Your task to perform on an android device: turn notification dots off Image 0: 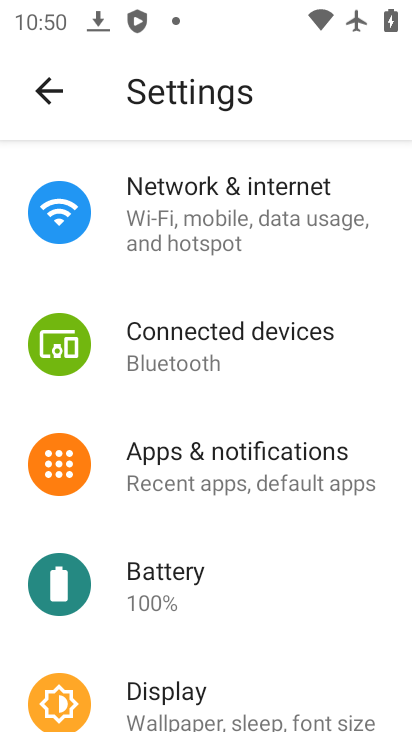
Step 0: click (276, 469)
Your task to perform on an android device: turn notification dots off Image 1: 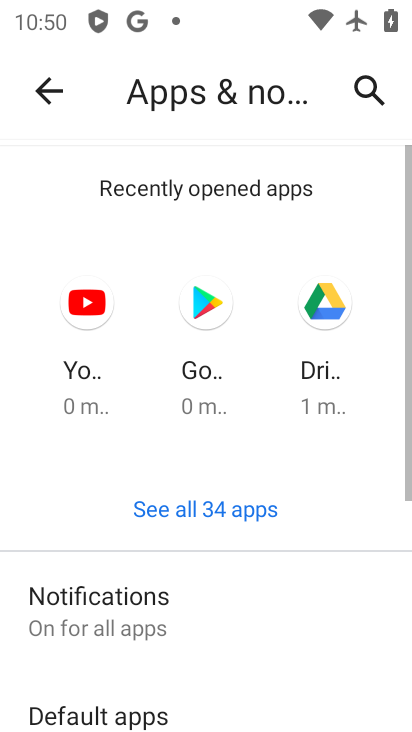
Step 1: drag from (276, 469) to (258, 180)
Your task to perform on an android device: turn notification dots off Image 2: 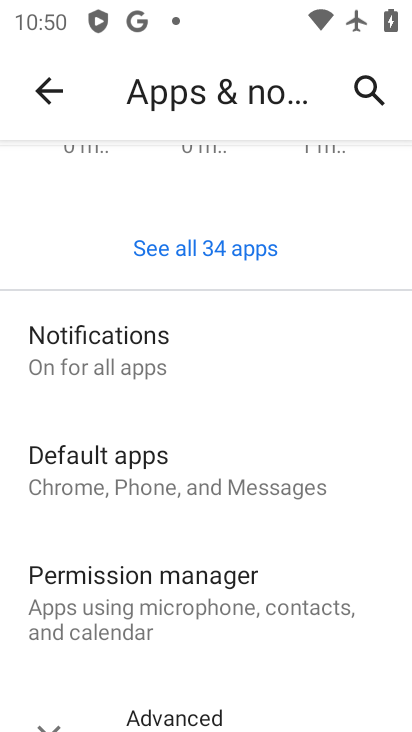
Step 2: click (185, 321)
Your task to perform on an android device: turn notification dots off Image 3: 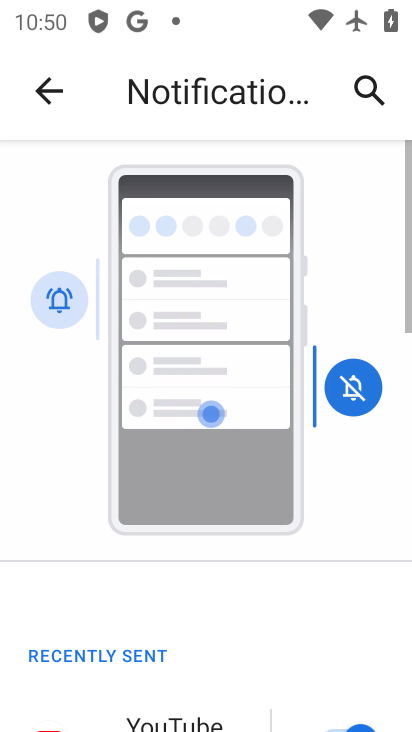
Step 3: drag from (208, 593) to (264, 166)
Your task to perform on an android device: turn notification dots off Image 4: 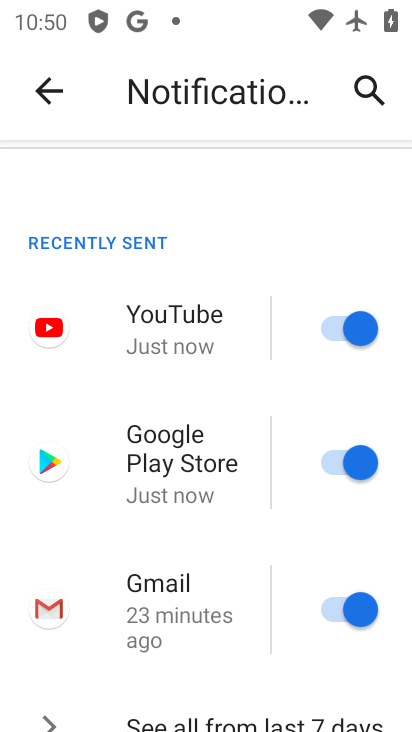
Step 4: drag from (210, 547) to (252, 151)
Your task to perform on an android device: turn notification dots off Image 5: 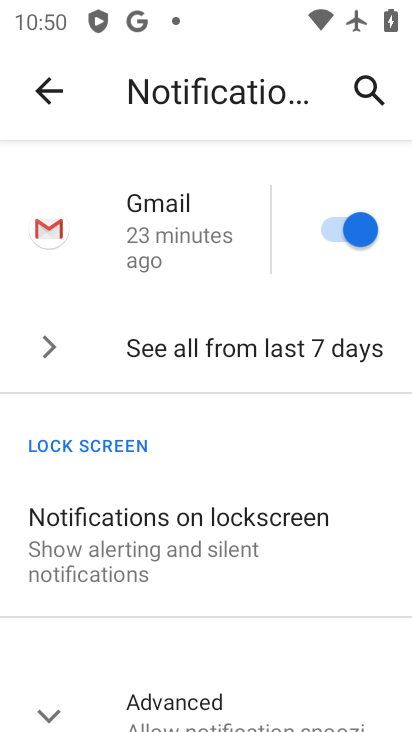
Step 5: drag from (228, 531) to (250, 184)
Your task to perform on an android device: turn notification dots off Image 6: 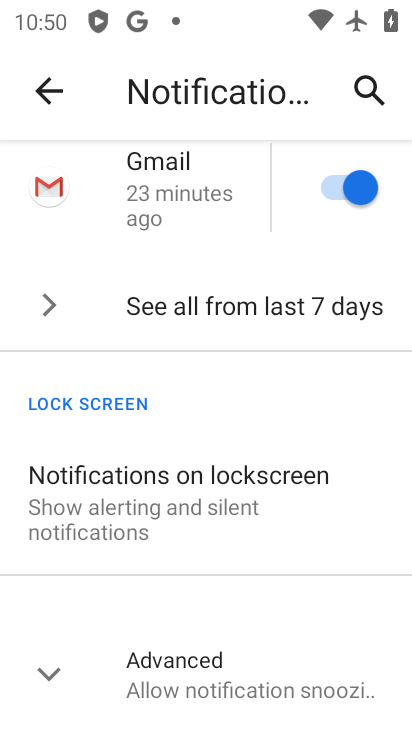
Step 6: click (174, 670)
Your task to perform on an android device: turn notification dots off Image 7: 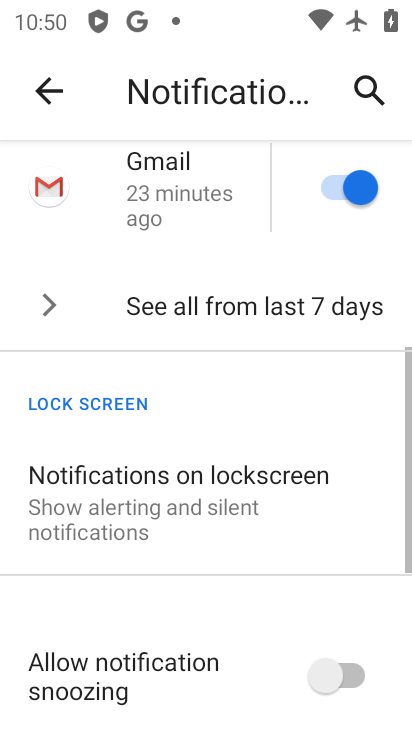
Step 7: drag from (324, 661) to (328, 248)
Your task to perform on an android device: turn notification dots off Image 8: 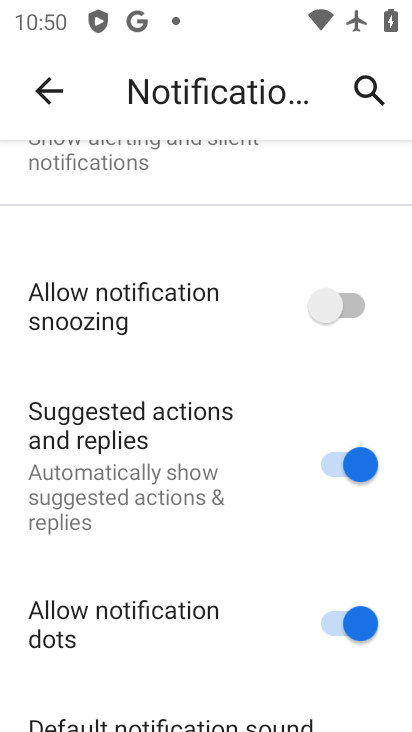
Step 8: click (359, 613)
Your task to perform on an android device: turn notification dots off Image 9: 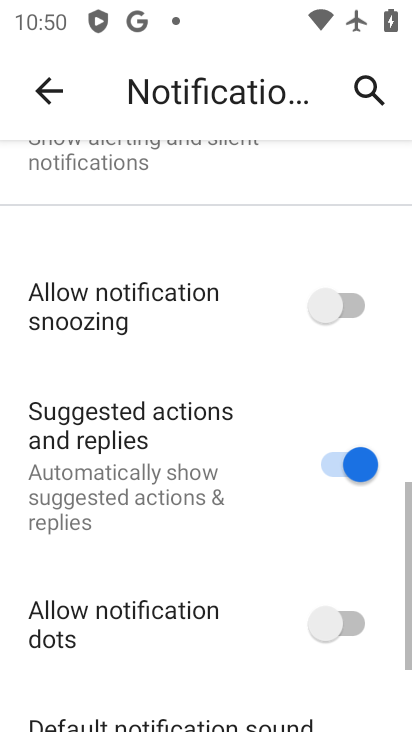
Step 9: task complete